Your task to perform on an android device: change timer sound Image 0: 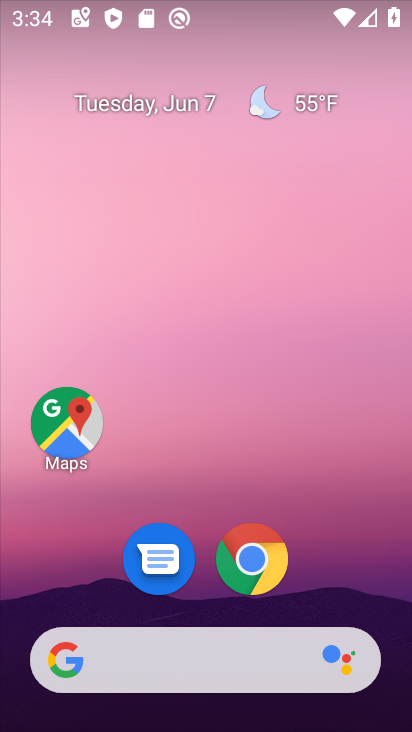
Step 0: drag from (203, 694) to (201, 286)
Your task to perform on an android device: change timer sound Image 1: 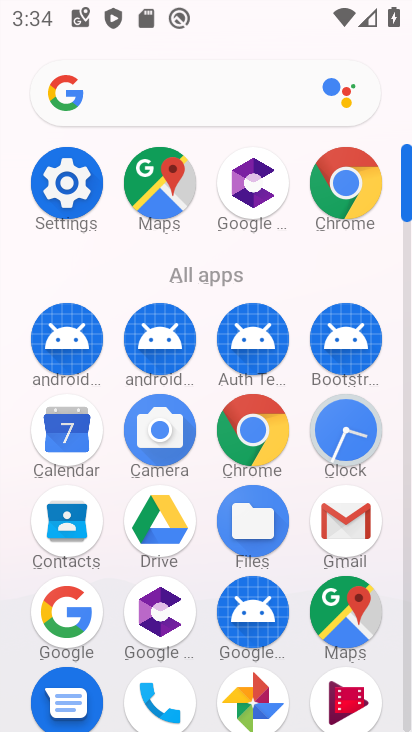
Step 1: click (353, 436)
Your task to perform on an android device: change timer sound Image 2: 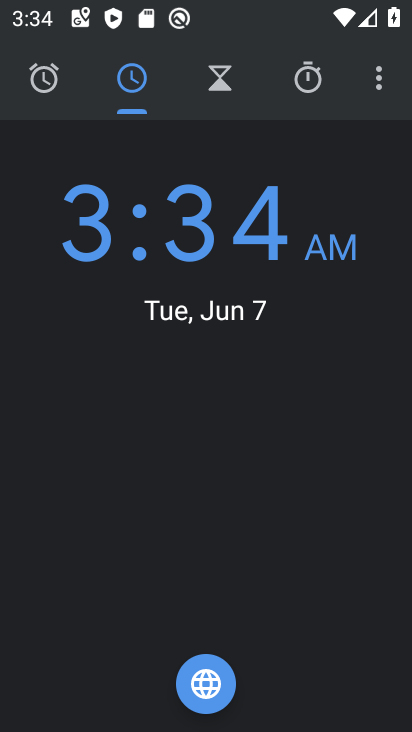
Step 2: click (379, 85)
Your task to perform on an android device: change timer sound Image 3: 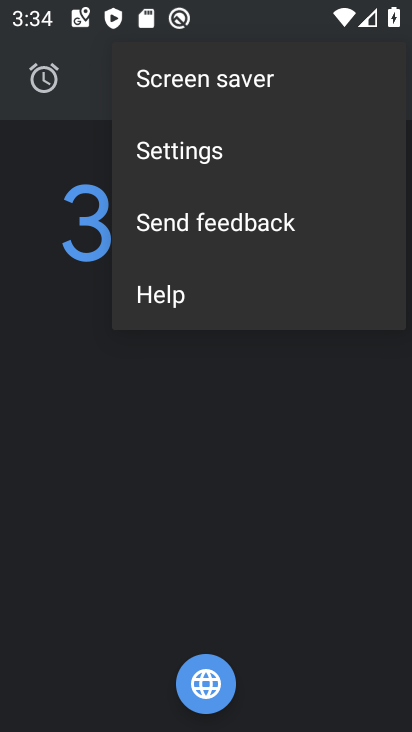
Step 3: click (185, 156)
Your task to perform on an android device: change timer sound Image 4: 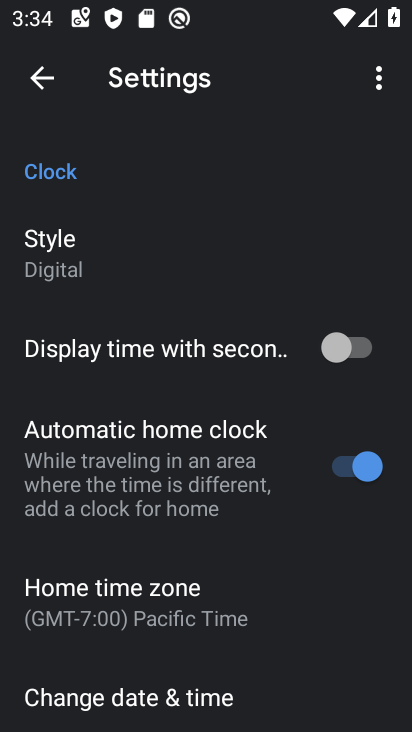
Step 4: drag from (144, 654) to (160, 357)
Your task to perform on an android device: change timer sound Image 5: 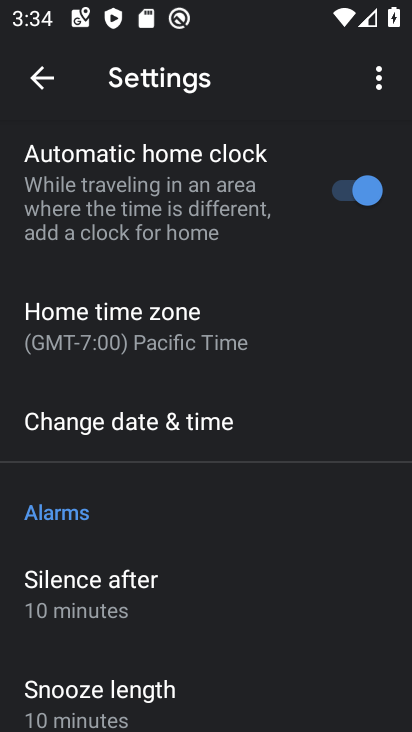
Step 5: drag from (140, 639) to (153, 406)
Your task to perform on an android device: change timer sound Image 6: 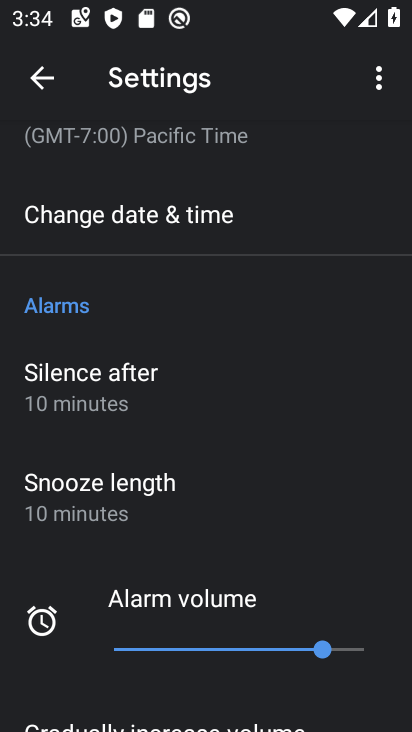
Step 6: drag from (153, 706) to (157, 354)
Your task to perform on an android device: change timer sound Image 7: 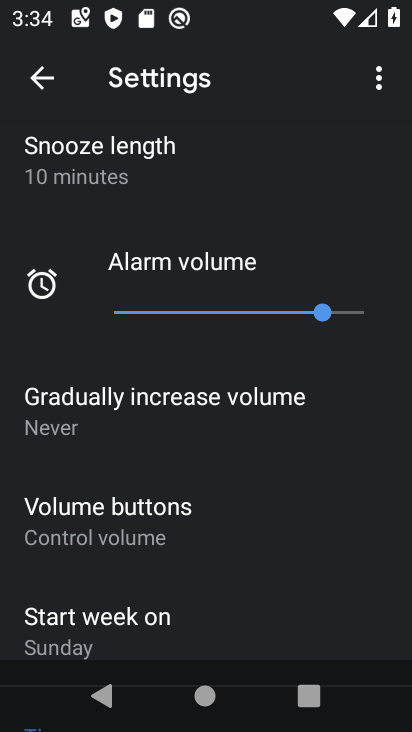
Step 7: drag from (130, 625) to (132, 348)
Your task to perform on an android device: change timer sound Image 8: 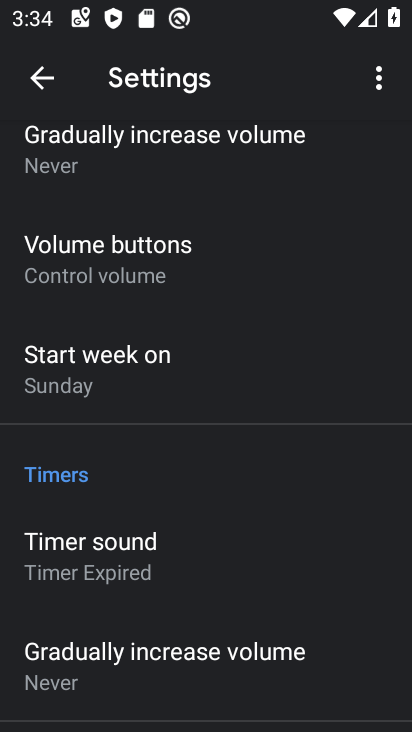
Step 8: click (108, 563)
Your task to perform on an android device: change timer sound Image 9: 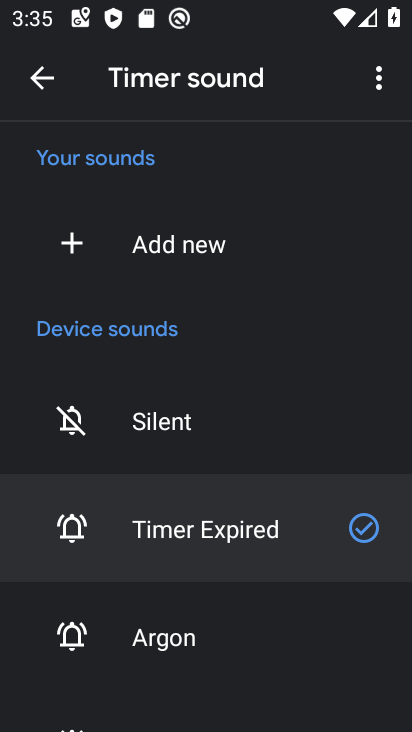
Step 9: click (186, 640)
Your task to perform on an android device: change timer sound Image 10: 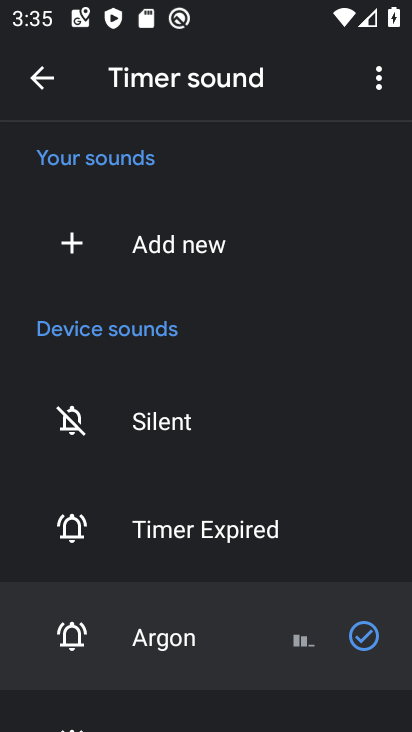
Step 10: task complete